Your task to perform on an android device: Open CNN.com Image 0: 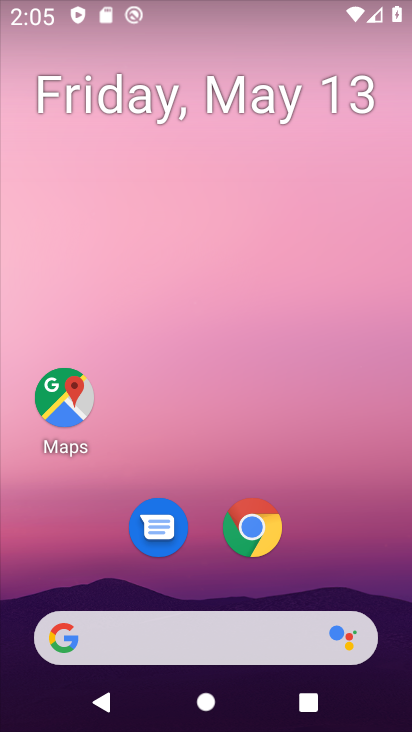
Step 0: click (152, 642)
Your task to perform on an android device: Open CNN.com Image 1: 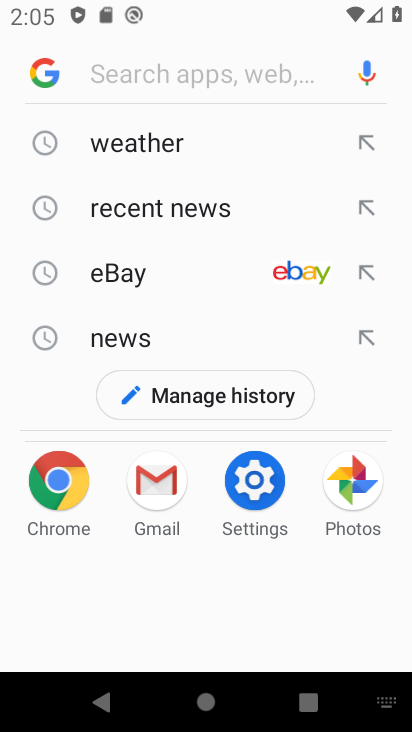
Step 1: type "cnn.com"
Your task to perform on an android device: Open CNN.com Image 2: 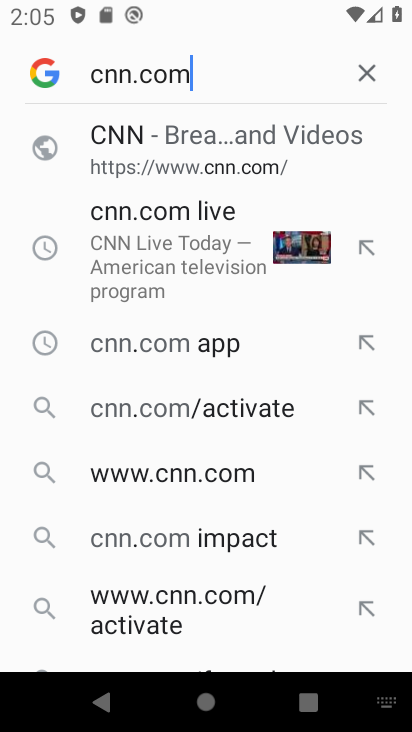
Step 2: click (297, 167)
Your task to perform on an android device: Open CNN.com Image 3: 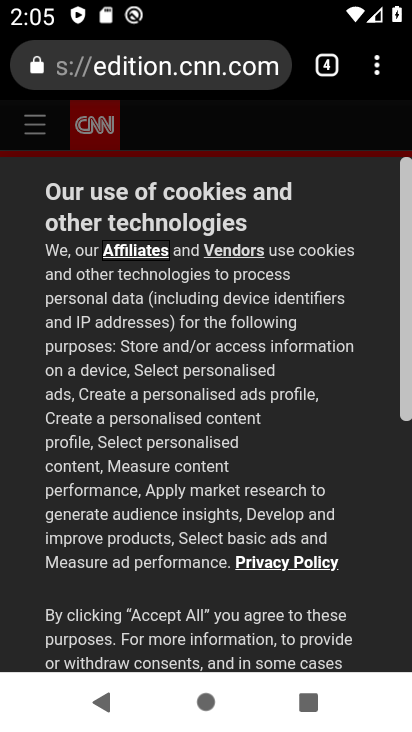
Step 3: task complete